Your task to perform on an android device: turn off sleep mode Image 0: 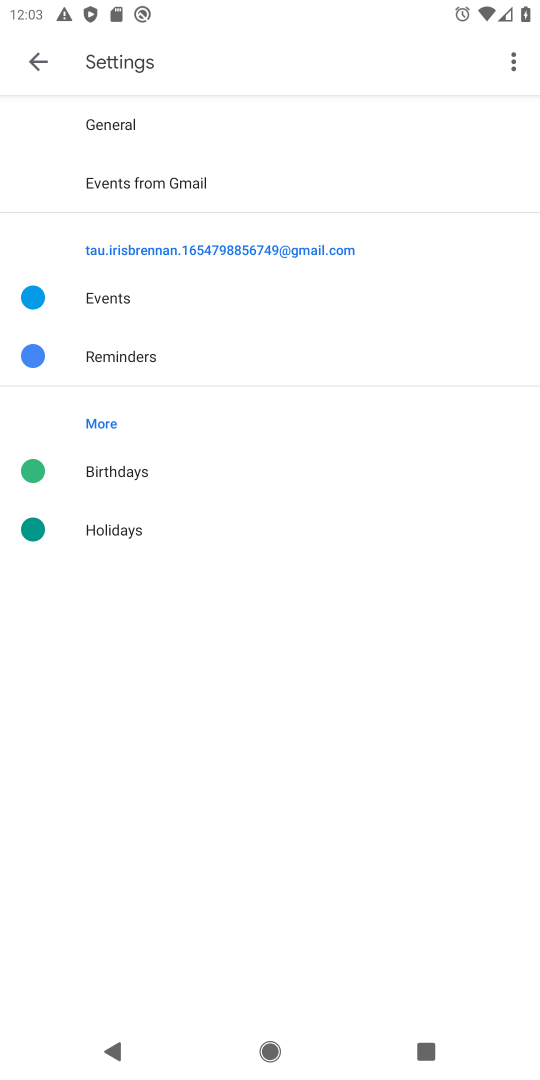
Step 0: press home button
Your task to perform on an android device: turn off sleep mode Image 1: 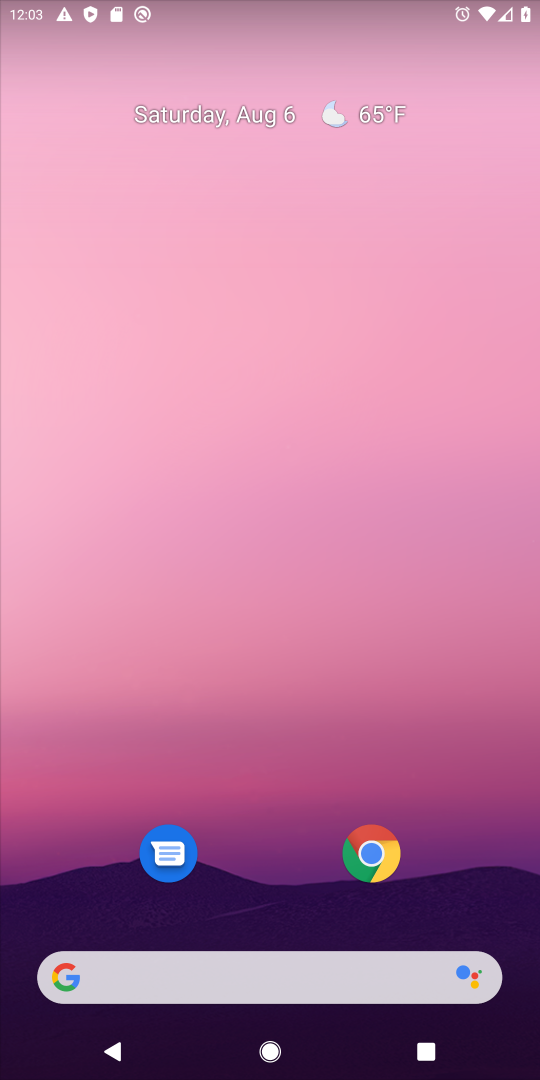
Step 1: drag from (196, 983) to (241, 119)
Your task to perform on an android device: turn off sleep mode Image 2: 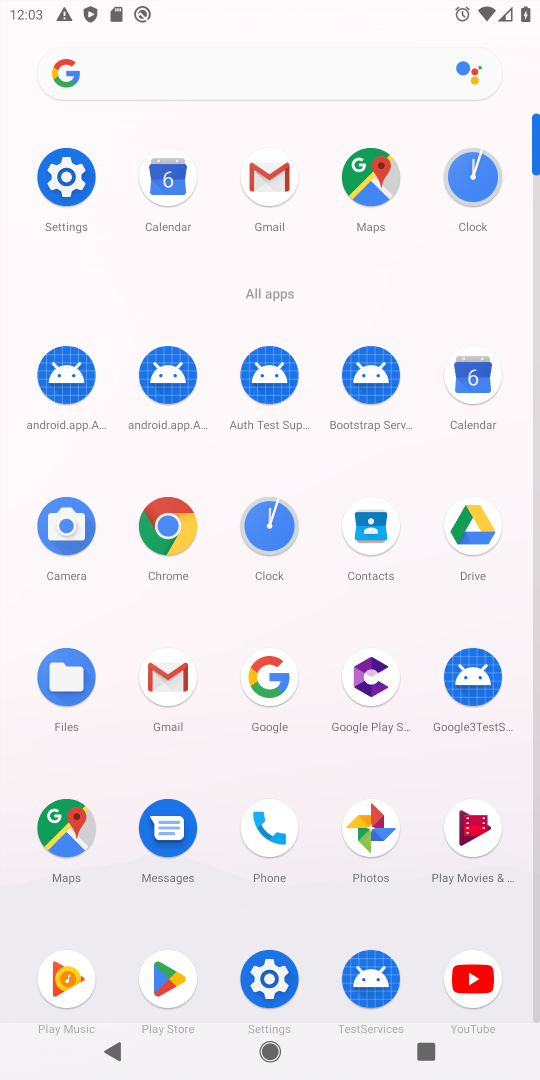
Step 2: click (66, 181)
Your task to perform on an android device: turn off sleep mode Image 3: 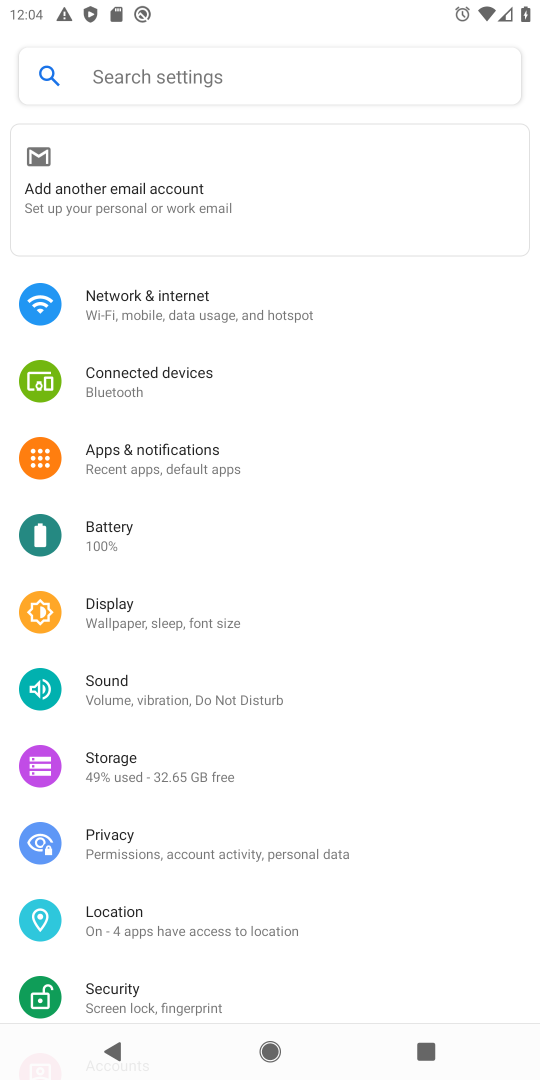
Step 3: click (146, 628)
Your task to perform on an android device: turn off sleep mode Image 4: 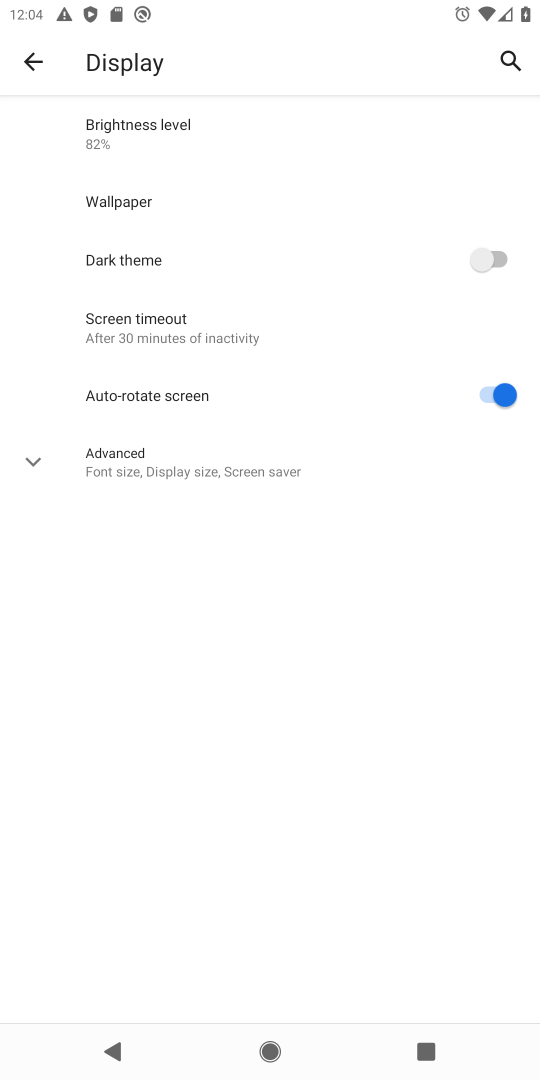
Step 4: click (138, 467)
Your task to perform on an android device: turn off sleep mode Image 5: 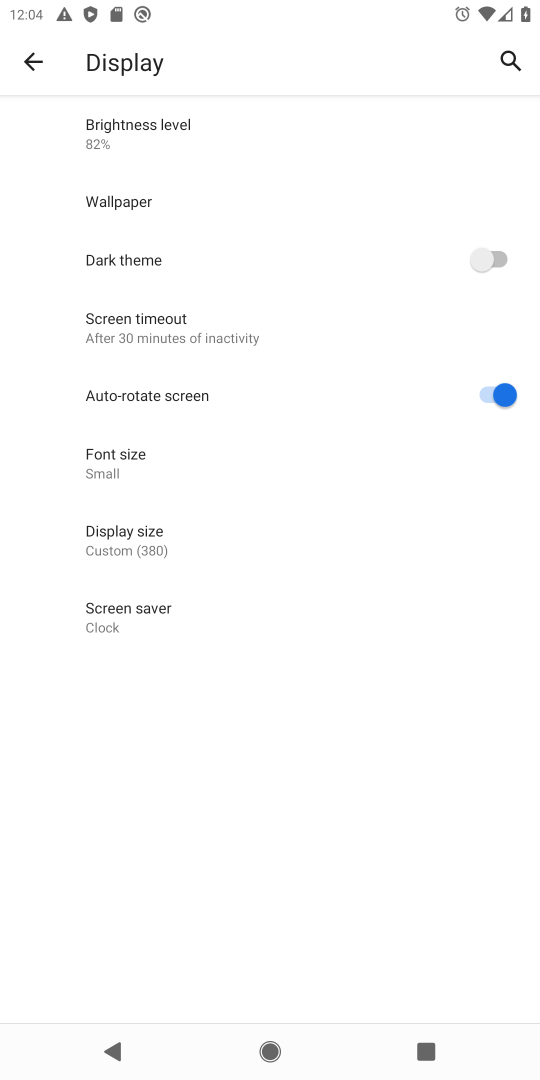
Step 5: task complete